Your task to perform on an android device: Search for sushi restaurants on Maps Image 0: 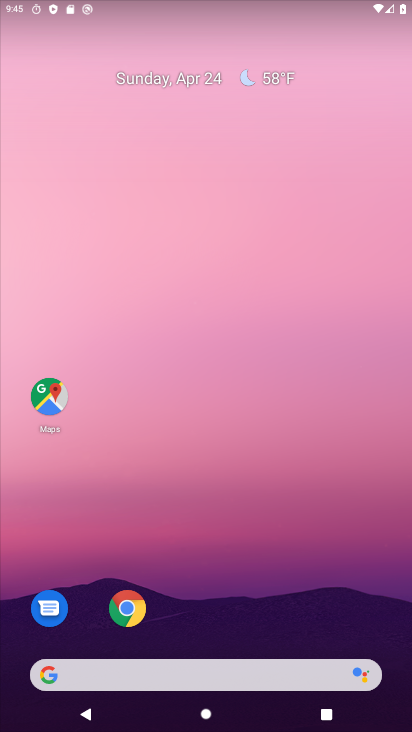
Step 0: drag from (351, 603) to (361, 91)
Your task to perform on an android device: Search for sushi restaurants on Maps Image 1: 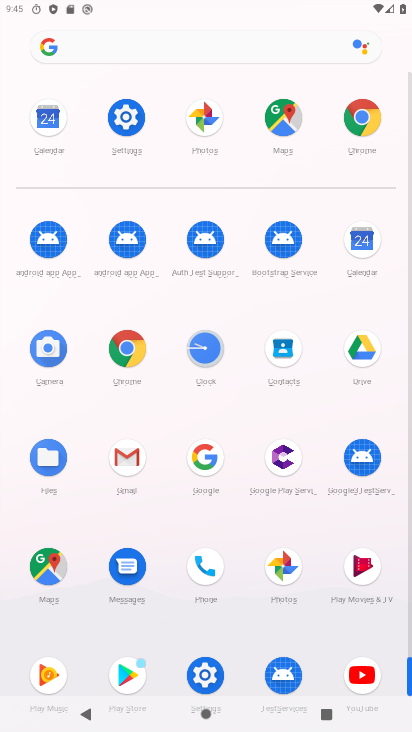
Step 1: click (279, 119)
Your task to perform on an android device: Search for sushi restaurants on Maps Image 2: 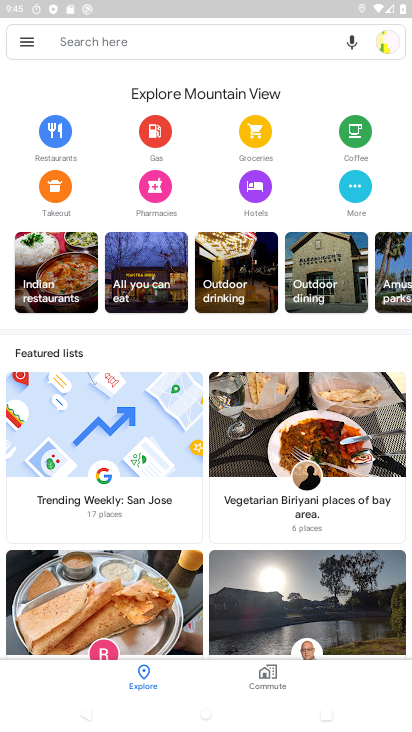
Step 2: click (201, 35)
Your task to perform on an android device: Search for sushi restaurants on Maps Image 3: 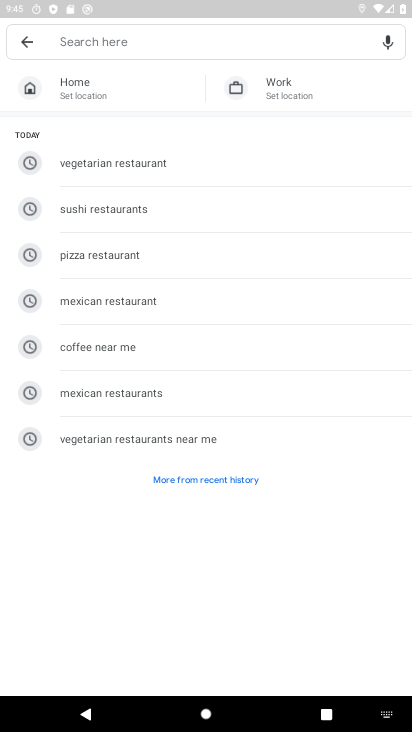
Step 3: type "sushi restaurants"
Your task to perform on an android device: Search for sushi restaurants on Maps Image 4: 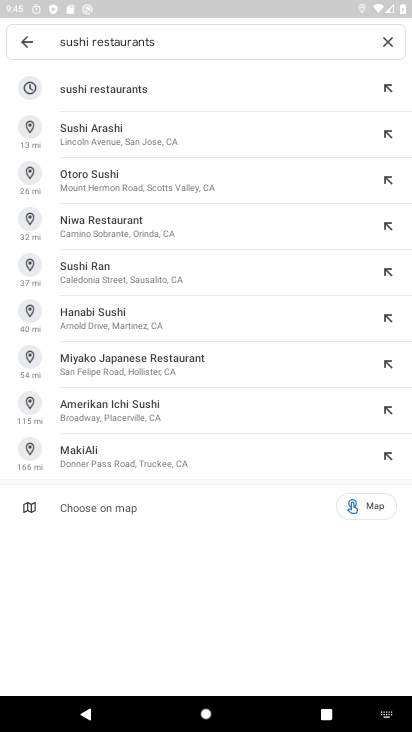
Step 4: click (198, 89)
Your task to perform on an android device: Search for sushi restaurants on Maps Image 5: 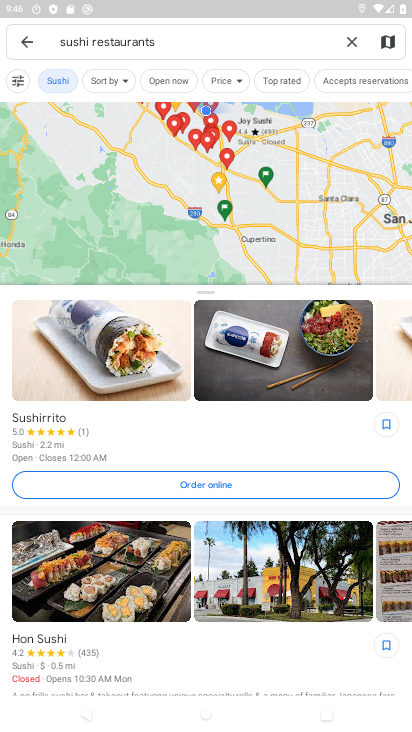
Step 5: task complete